Your task to perform on an android device: allow notifications from all sites in the chrome app Image 0: 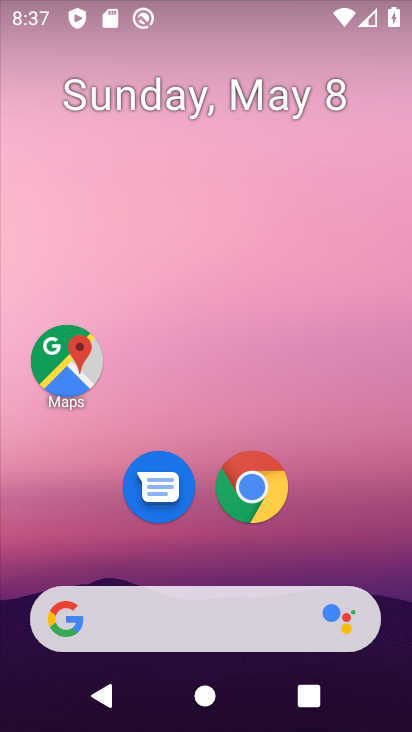
Step 0: click (247, 510)
Your task to perform on an android device: allow notifications from all sites in the chrome app Image 1: 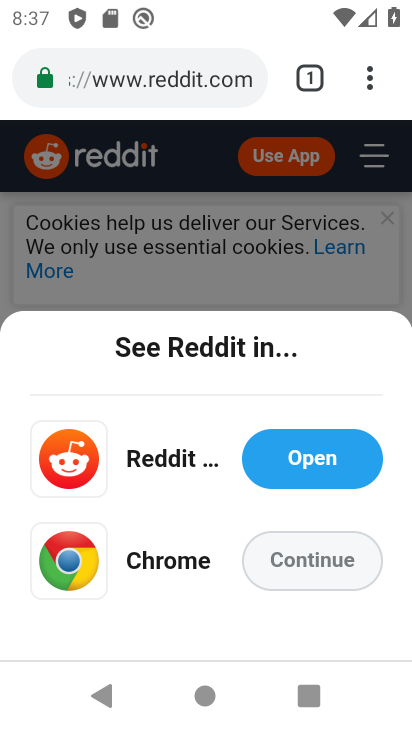
Step 1: click (304, 550)
Your task to perform on an android device: allow notifications from all sites in the chrome app Image 2: 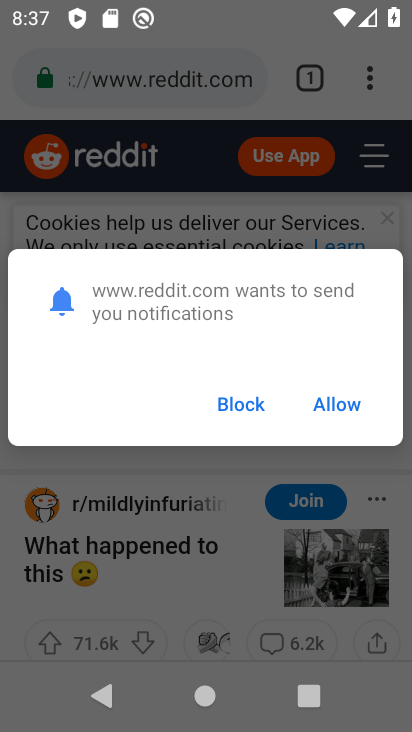
Step 2: click (337, 386)
Your task to perform on an android device: allow notifications from all sites in the chrome app Image 3: 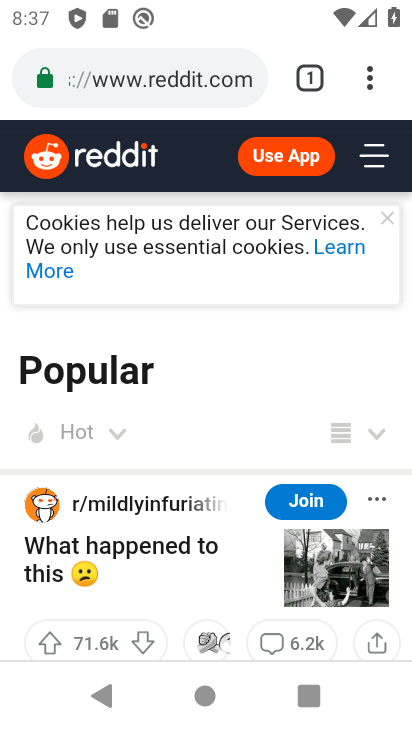
Step 3: drag from (368, 79) to (107, 551)
Your task to perform on an android device: allow notifications from all sites in the chrome app Image 4: 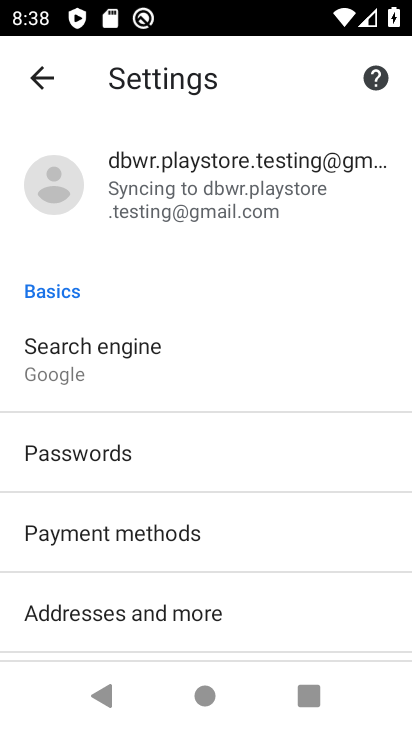
Step 4: drag from (181, 587) to (241, 373)
Your task to perform on an android device: allow notifications from all sites in the chrome app Image 5: 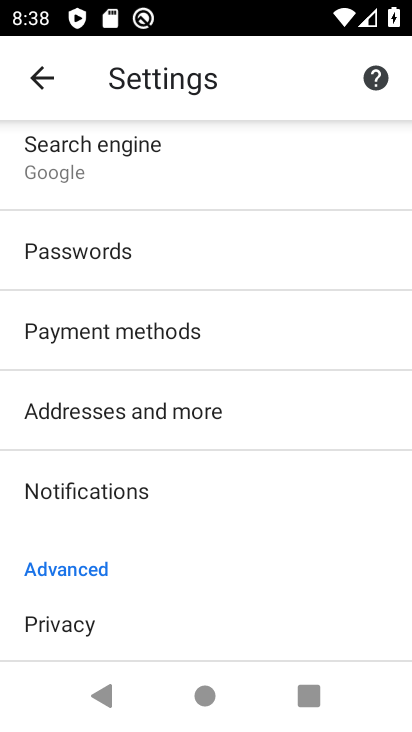
Step 5: drag from (151, 625) to (193, 292)
Your task to perform on an android device: allow notifications from all sites in the chrome app Image 6: 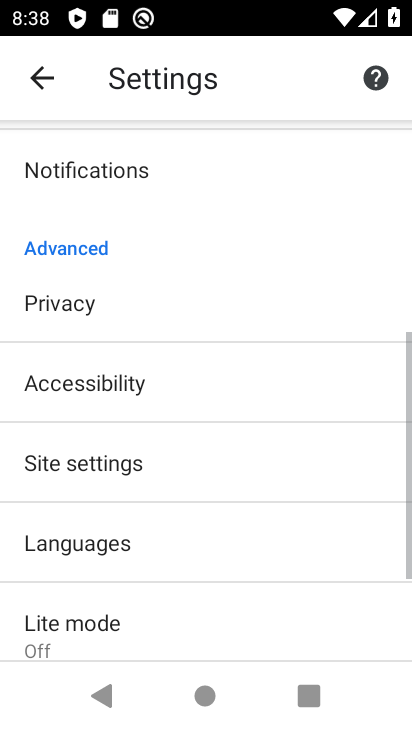
Step 6: click (130, 467)
Your task to perform on an android device: allow notifications from all sites in the chrome app Image 7: 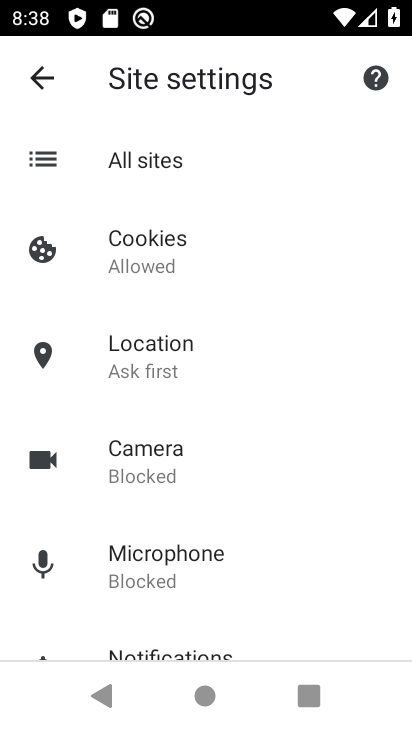
Step 7: click (160, 158)
Your task to perform on an android device: allow notifications from all sites in the chrome app Image 8: 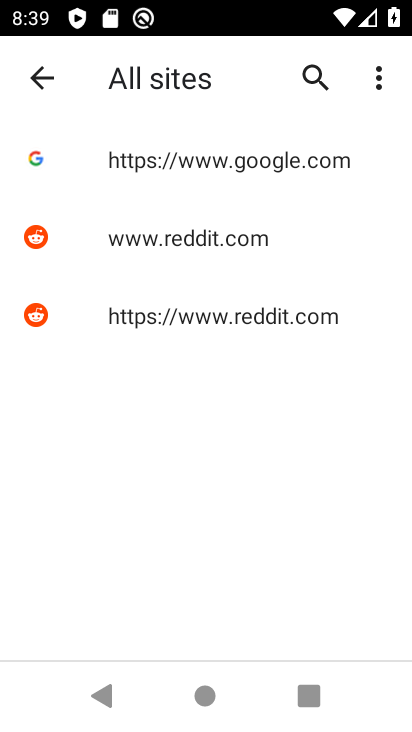
Step 8: click (154, 163)
Your task to perform on an android device: allow notifications from all sites in the chrome app Image 9: 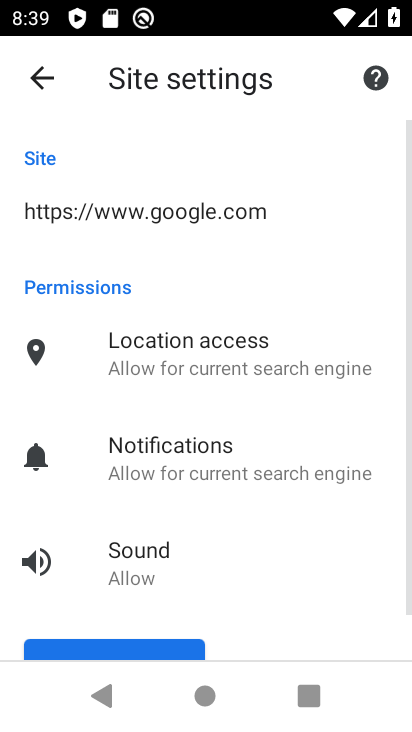
Step 9: click (185, 461)
Your task to perform on an android device: allow notifications from all sites in the chrome app Image 10: 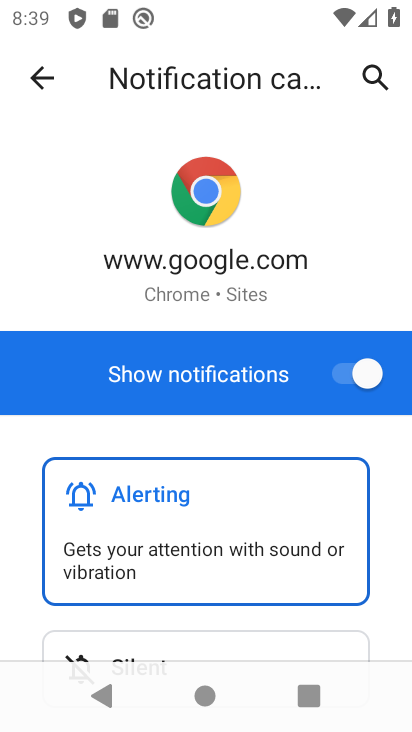
Step 10: task complete